Your task to perform on an android device: open sync settings in chrome Image 0: 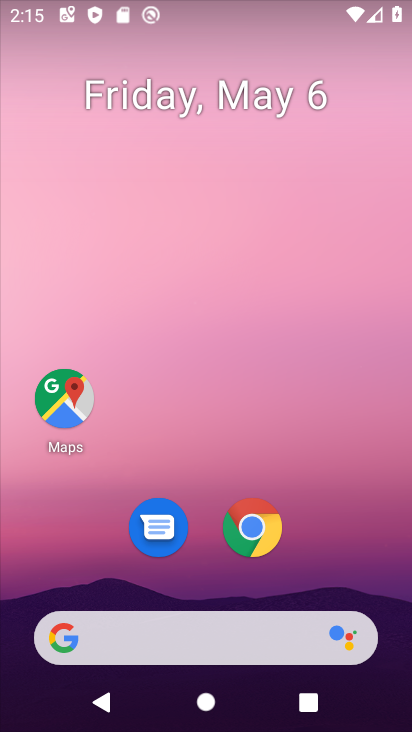
Step 0: click (272, 529)
Your task to perform on an android device: open sync settings in chrome Image 1: 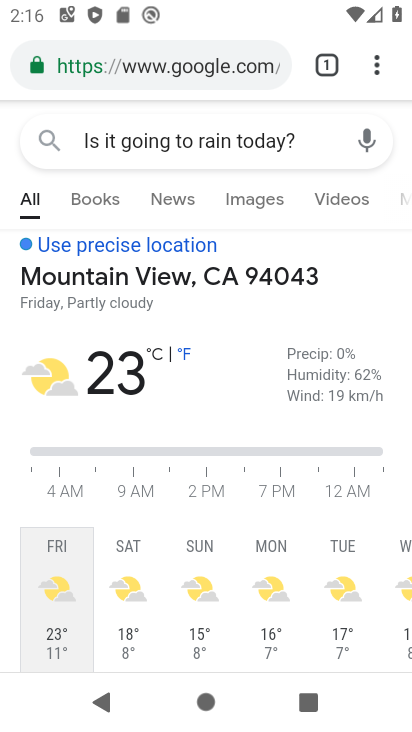
Step 1: drag from (374, 71) to (142, 590)
Your task to perform on an android device: open sync settings in chrome Image 2: 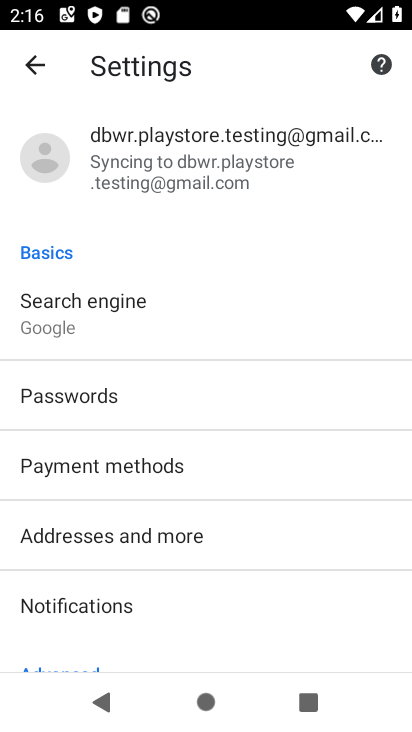
Step 2: click (122, 144)
Your task to perform on an android device: open sync settings in chrome Image 3: 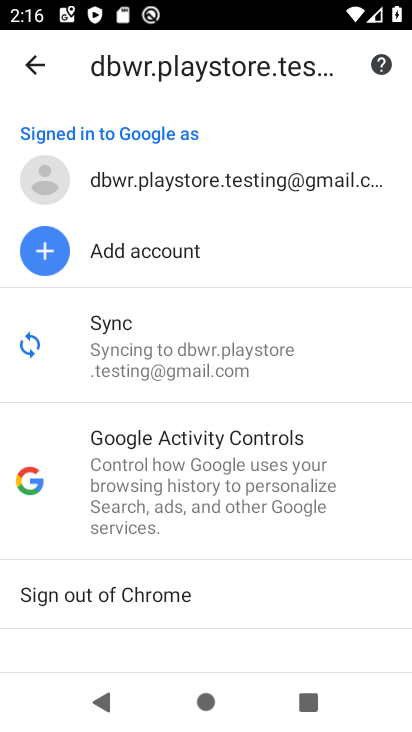
Step 3: click (118, 347)
Your task to perform on an android device: open sync settings in chrome Image 4: 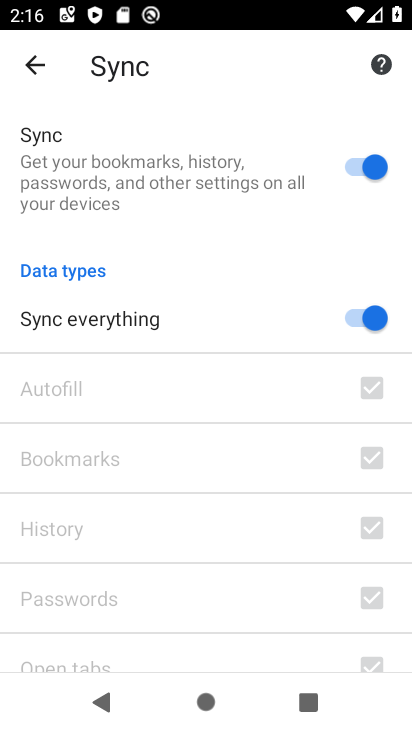
Step 4: task complete